Your task to perform on an android device: What's the weather going to be tomorrow? Image 0: 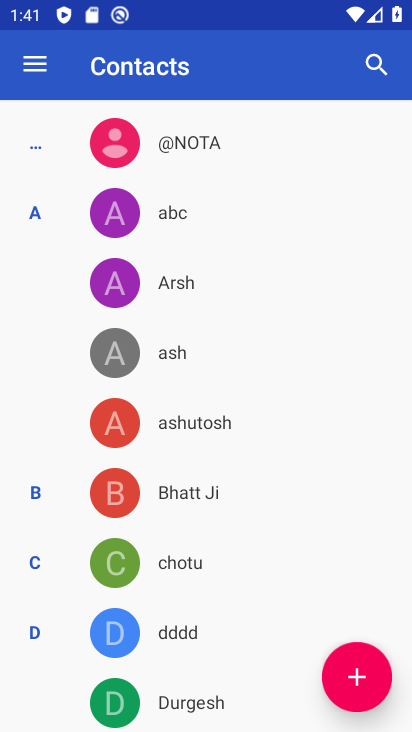
Step 0: press home button
Your task to perform on an android device: What's the weather going to be tomorrow? Image 1: 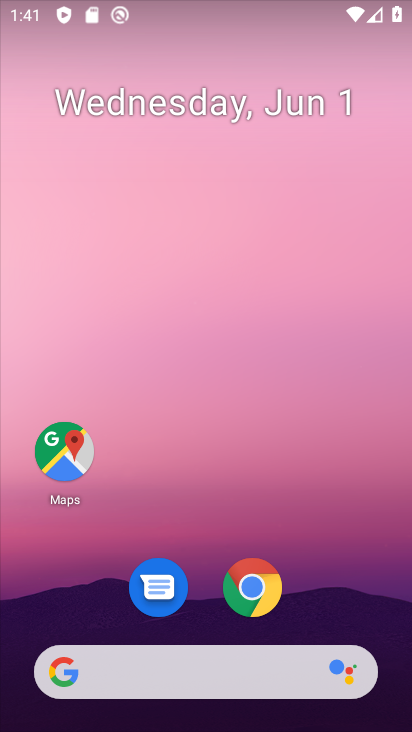
Step 1: click (290, 675)
Your task to perform on an android device: What's the weather going to be tomorrow? Image 2: 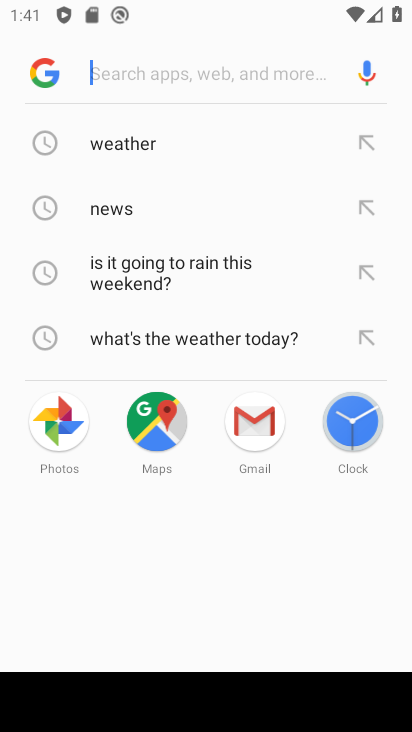
Step 2: click (162, 70)
Your task to perform on an android device: What's the weather going to be tomorrow? Image 3: 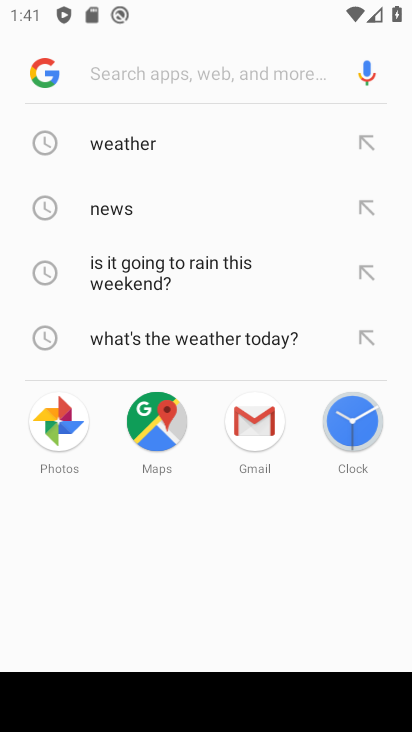
Step 3: type "weather going to be tomorrow?"
Your task to perform on an android device: What's the weather going to be tomorrow? Image 4: 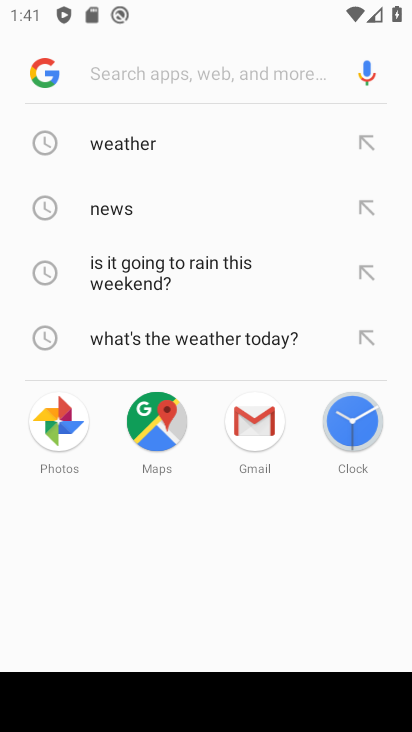
Step 4: click (169, 62)
Your task to perform on an android device: What's the weather going to be tomorrow? Image 5: 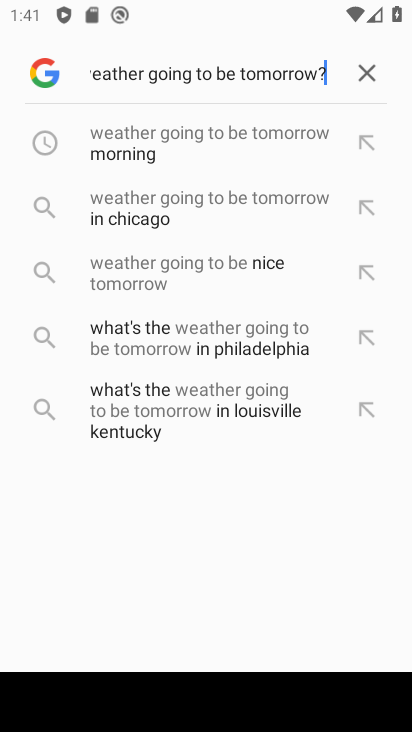
Step 5: click (195, 72)
Your task to perform on an android device: What's the weather going to be tomorrow? Image 6: 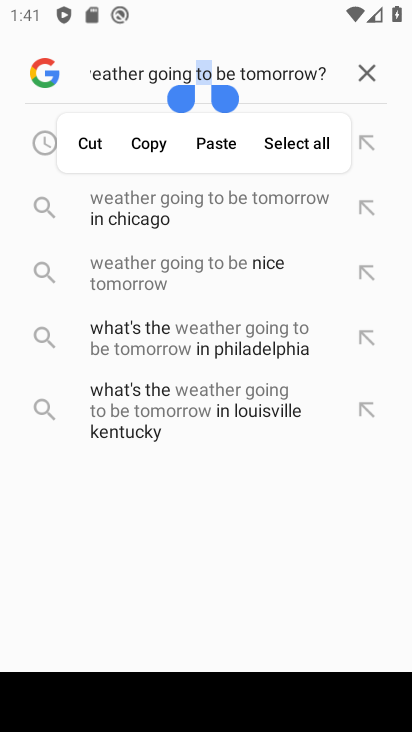
Step 6: click (336, 77)
Your task to perform on an android device: What's the weather going to be tomorrow? Image 7: 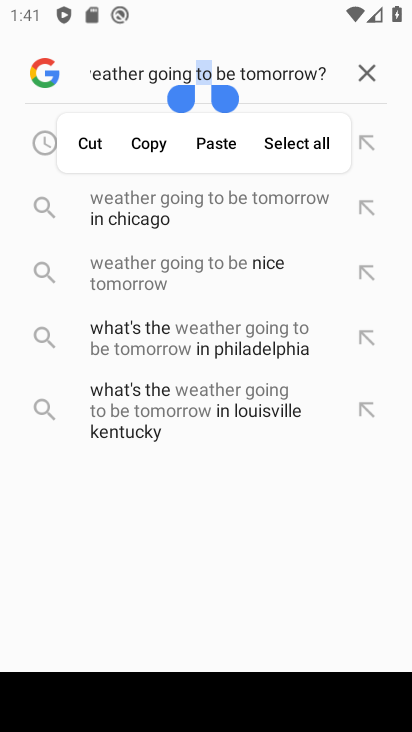
Step 7: click (316, 75)
Your task to perform on an android device: What's the weather going to be tomorrow? Image 8: 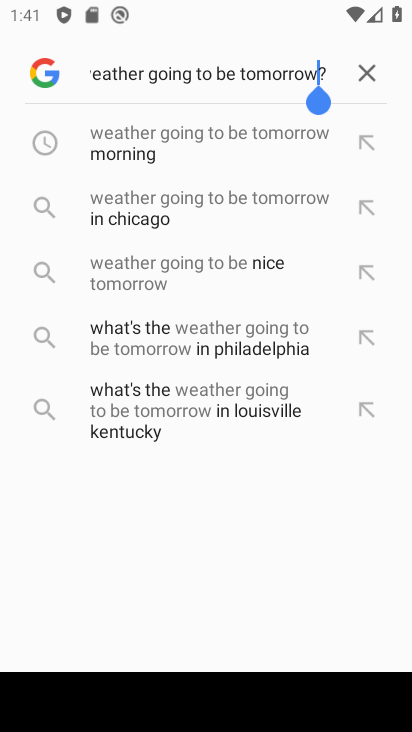
Step 8: click (245, 139)
Your task to perform on an android device: What's the weather going to be tomorrow? Image 9: 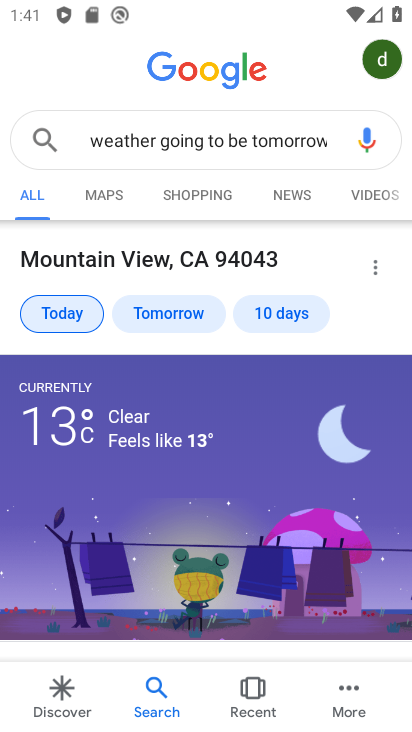
Step 9: task complete